Your task to perform on an android device: Turn off the flashlight Image 0: 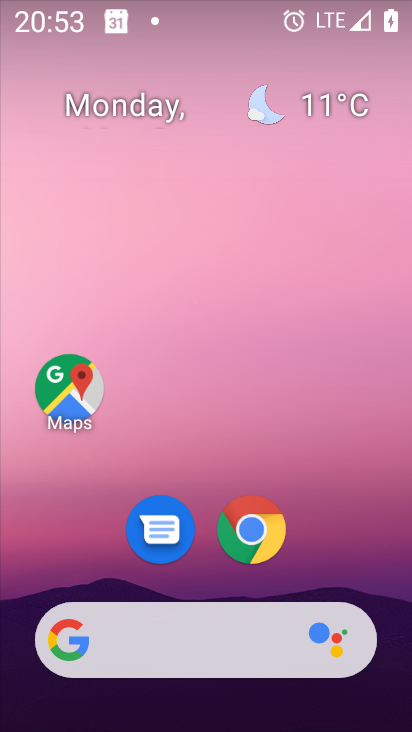
Step 0: drag from (181, 611) to (205, 200)
Your task to perform on an android device: Turn off the flashlight Image 1: 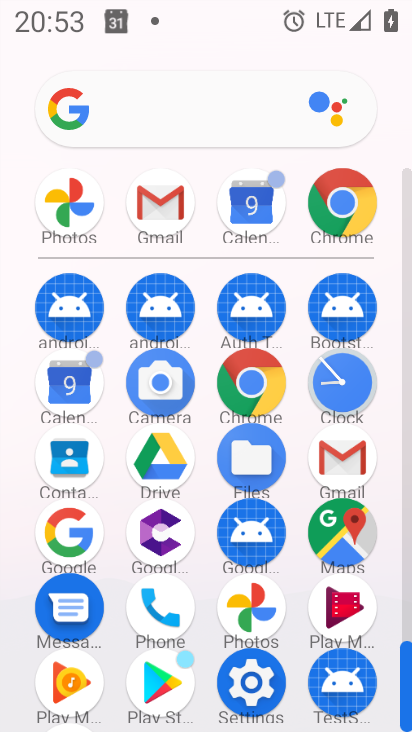
Step 1: task complete